Your task to perform on an android device: turn off wifi Image 0: 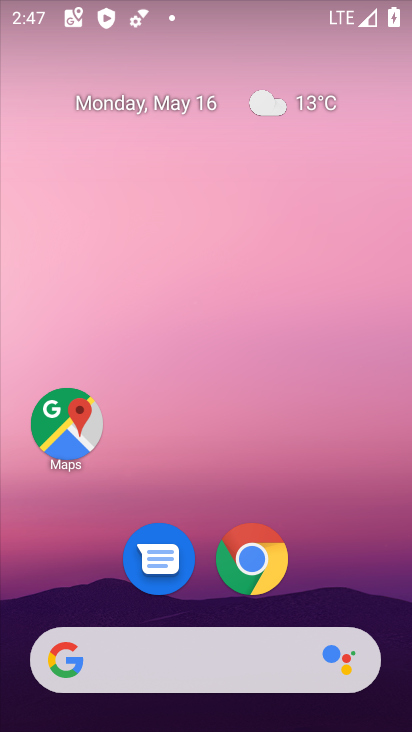
Step 0: drag from (87, 9) to (164, 678)
Your task to perform on an android device: turn off wifi Image 1: 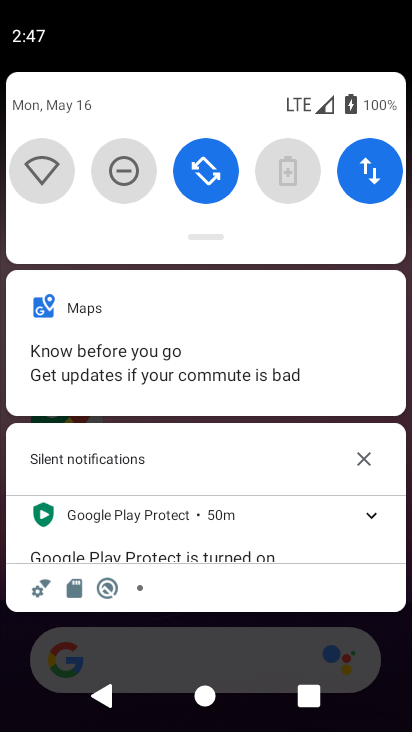
Step 1: task complete